Your task to perform on an android device: Open CNN.com Image 0: 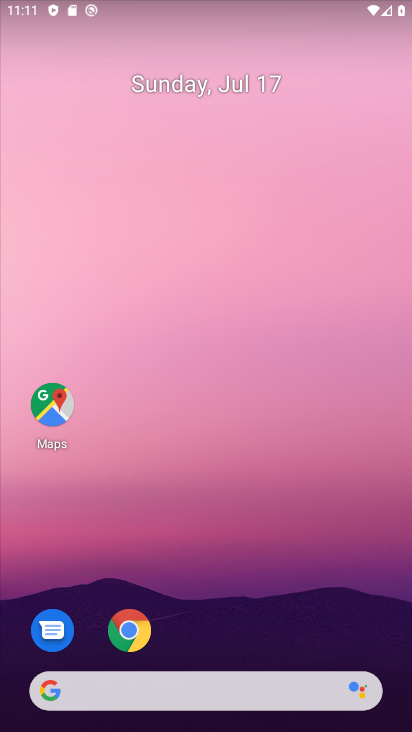
Step 0: click (137, 628)
Your task to perform on an android device: Open CNN.com Image 1: 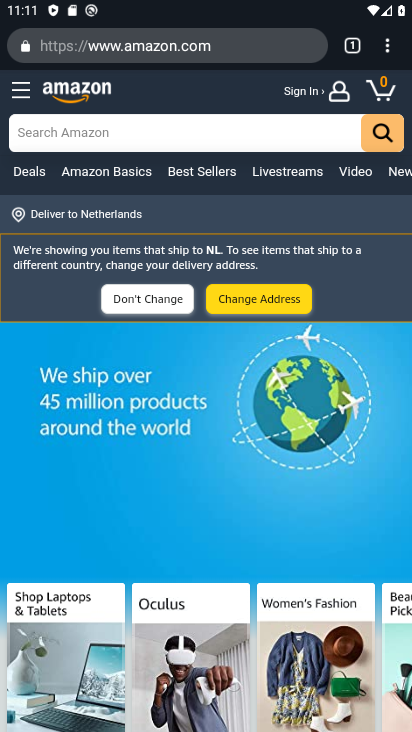
Step 1: click (208, 50)
Your task to perform on an android device: Open CNN.com Image 2: 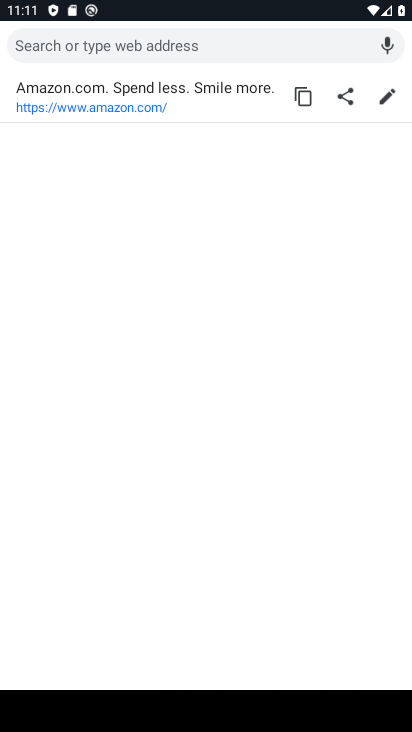
Step 2: type "CNN.com"
Your task to perform on an android device: Open CNN.com Image 3: 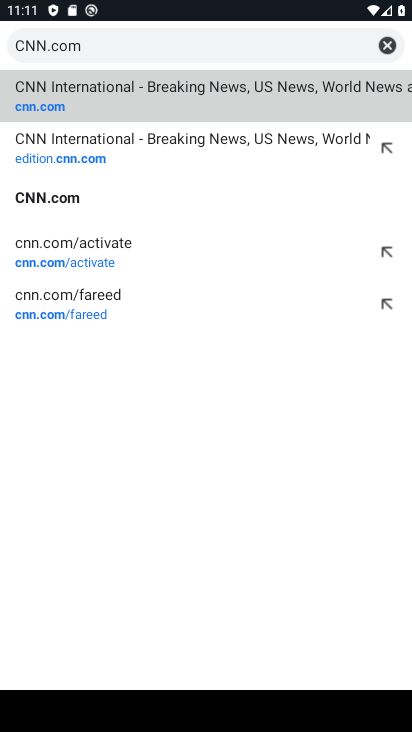
Step 3: click (105, 102)
Your task to perform on an android device: Open CNN.com Image 4: 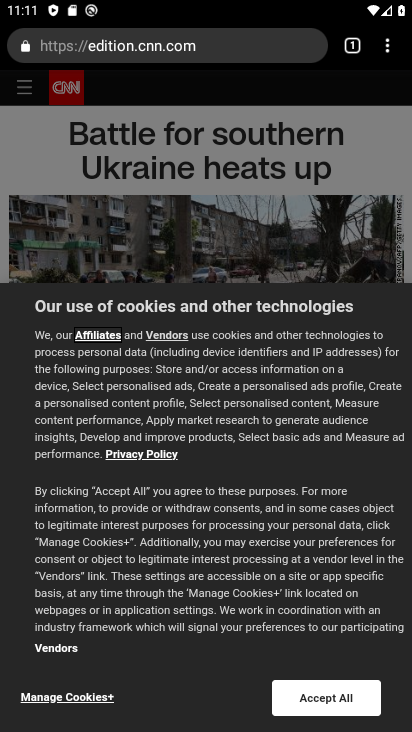
Step 4: task complete